Your task to perform on an android device: Open Yahoo.com Image 0: 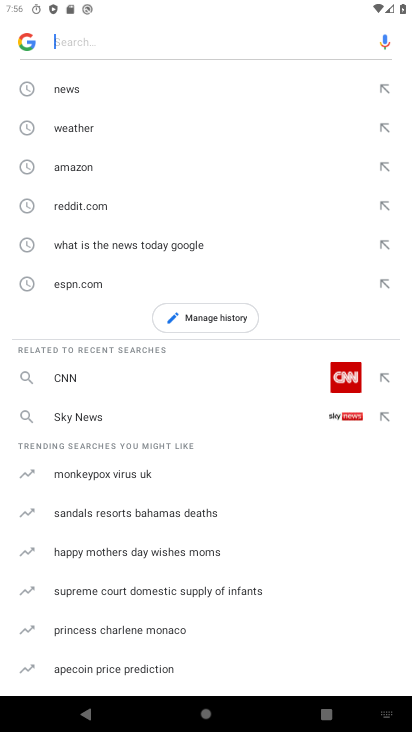
Step 0: type "yahoo.com"
Your task to perform on an android device: Open Yahoo.com Image 1: 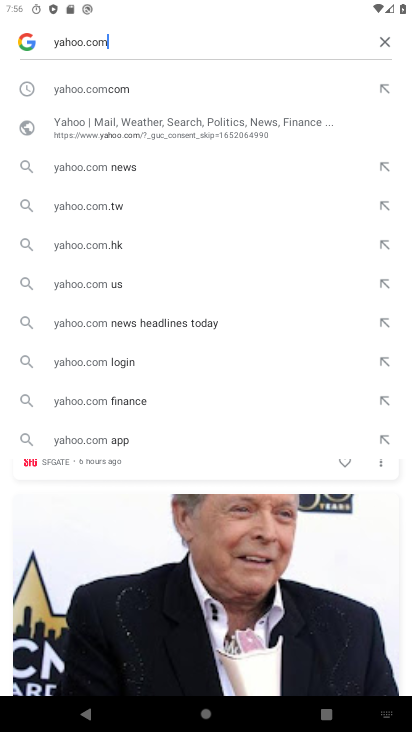
Step 1: type " "
Your task to perform on an android device: Open Yahoo.com Image 2: 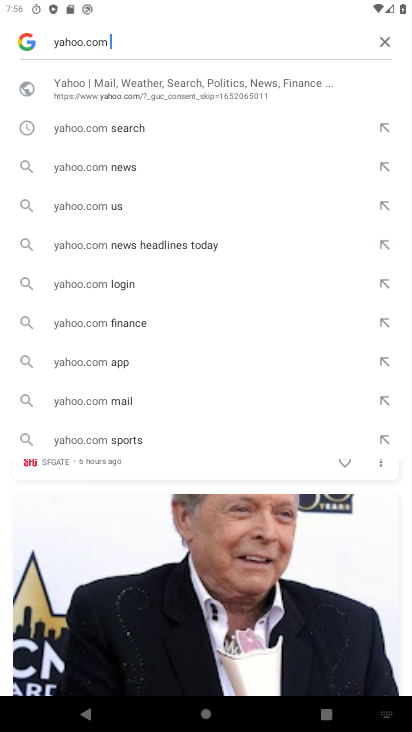
Step 2: click (120, 138)
Your task to perform on an android device: Open Yahoo.com Image 3: 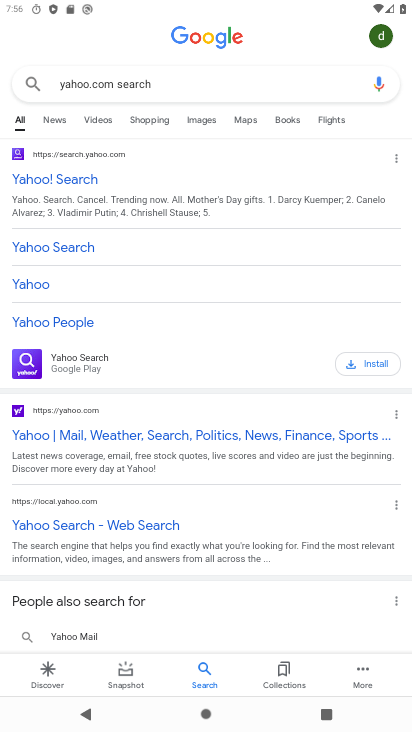
Step 3: click (77, 191)
Your task to perform on an android device: Open Yahoo.com Image 4: 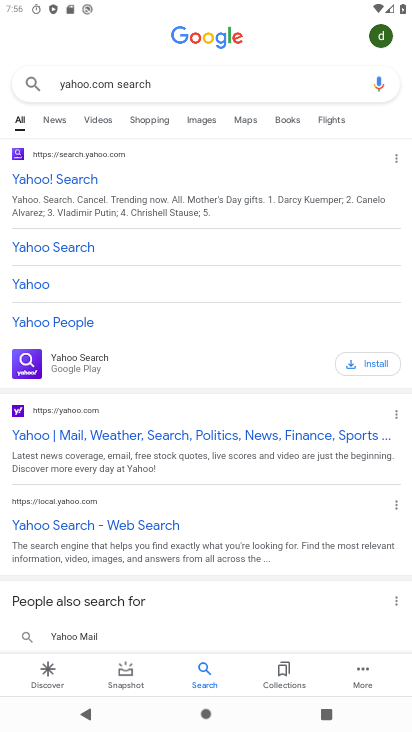
Step 4: click (93, 160)
Your task to perform on an android device: Open Yahoo.com Image 5: 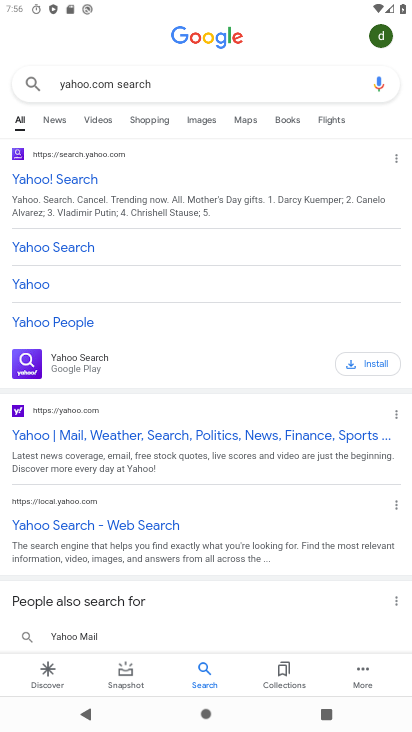
Step 5: click (110, 205)
Your task to perform on an android device: Open Yahoo.com Image 6: 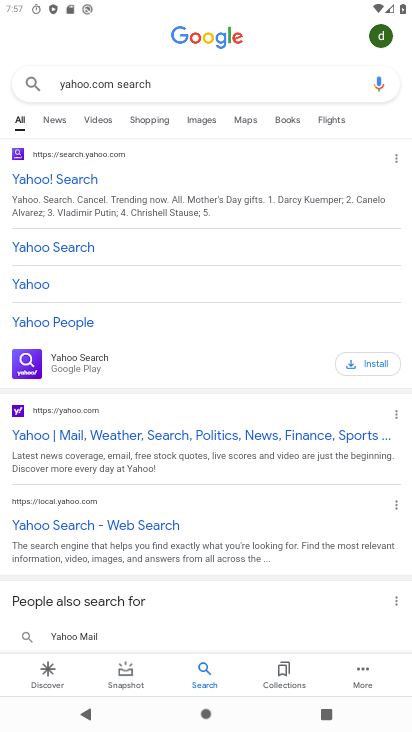
Step 6: click (57, 171)
Your task to perform on an android device: Open Yahoo.com Image 7: 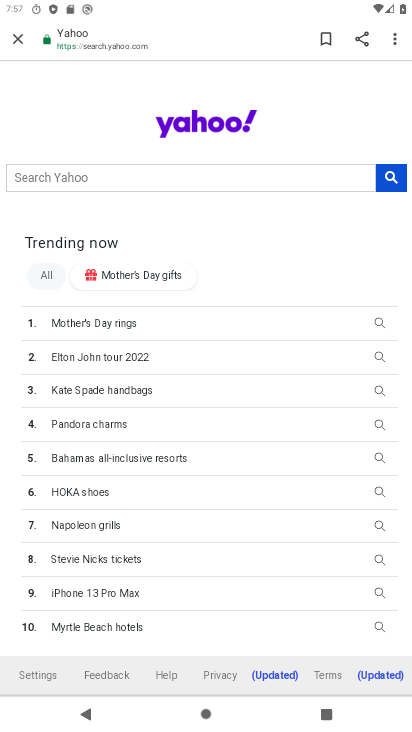
Step 7: task complete